Your task to perform on an android device: Open calendar and show me the second week of next month Image 0: 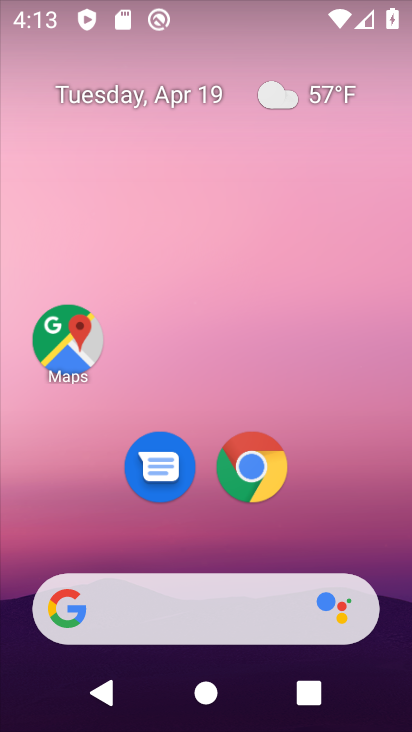
Step 0: drag from (173, 521) to (190, 68)
Your task to perform on an android device: Open calendar and show me the second week of next month Image 1: 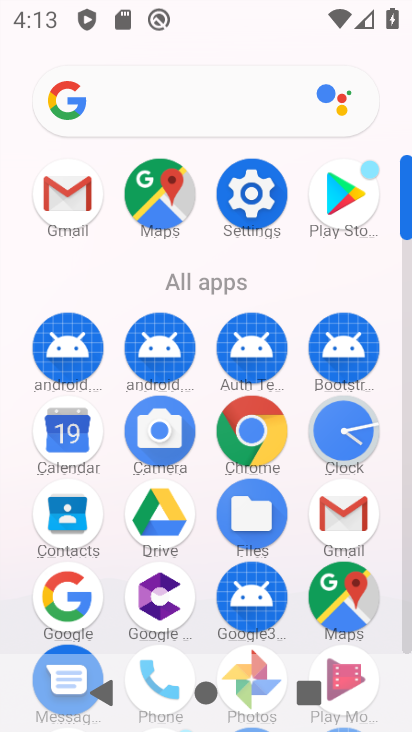
Step 1: click (71, 441)
Your task to perform on an android device: Open calendar and show me the second week of next month Image 2: 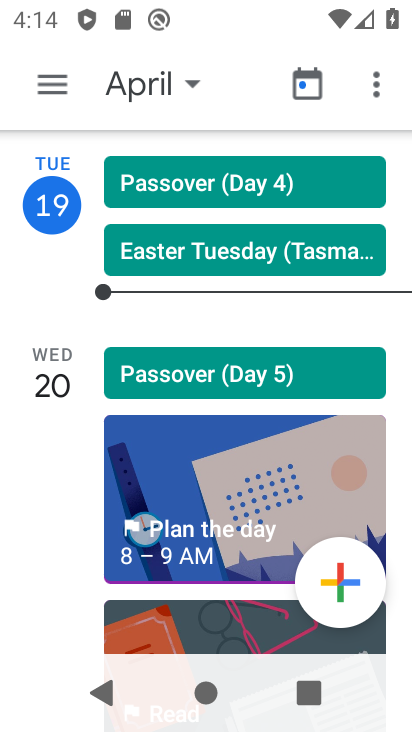
Step 2: click (192, 89)
Your task to perform on an android device: Open calendar and show me the second week of next month Image 3: 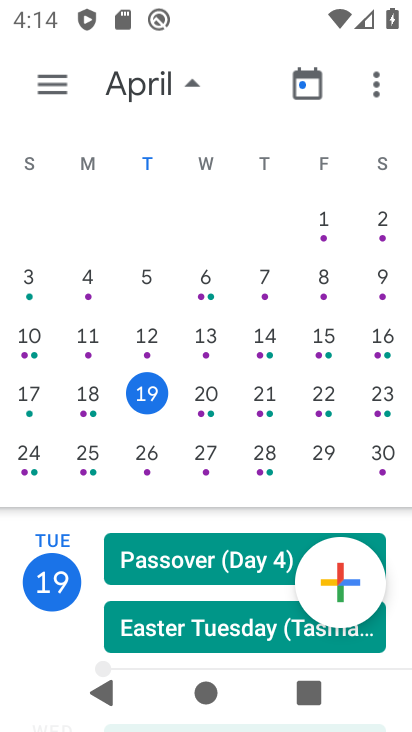
Step 3: drag from (313, 362) to (25, 368)
Your task to perform on an android device: Open calendar and show me the second week of next month Image 4: 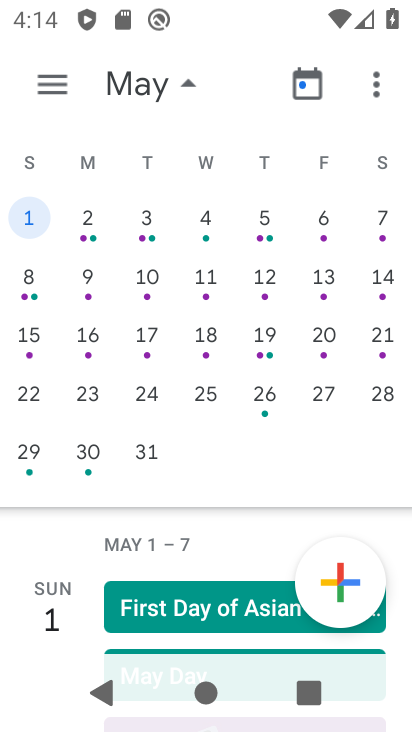
Step 4: click (30, 299)
Your task to perform on an android device: Open calendar and show me the second week of next month Image 5: 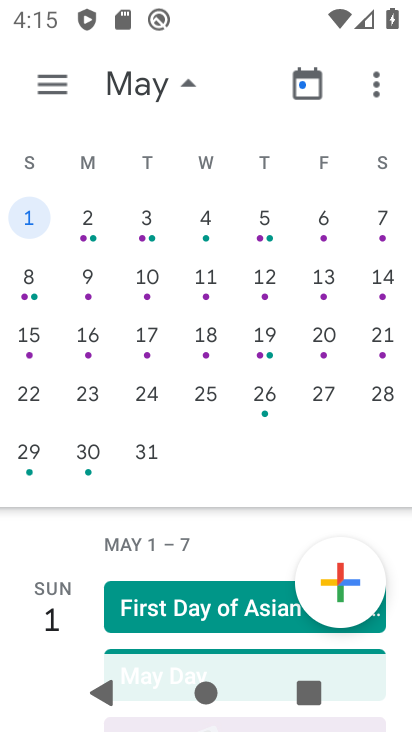
Step 5: task complete